Your task to perform on an android device: Open battery settings Image 0: 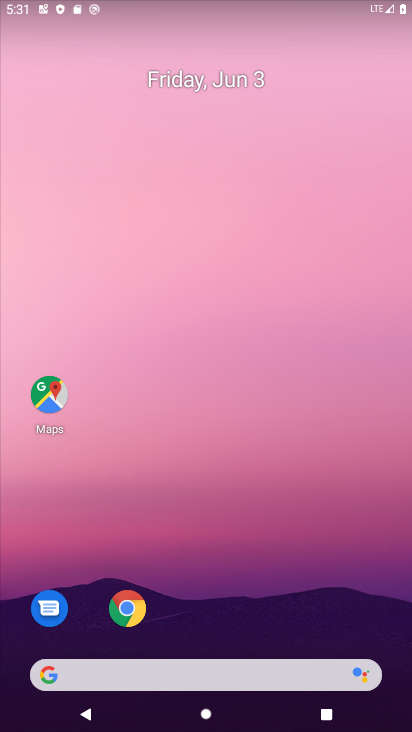
Step 0: drag from (231, 570) to (227, 121)
Your task to perform on an android device: Open battery settings Image 1: 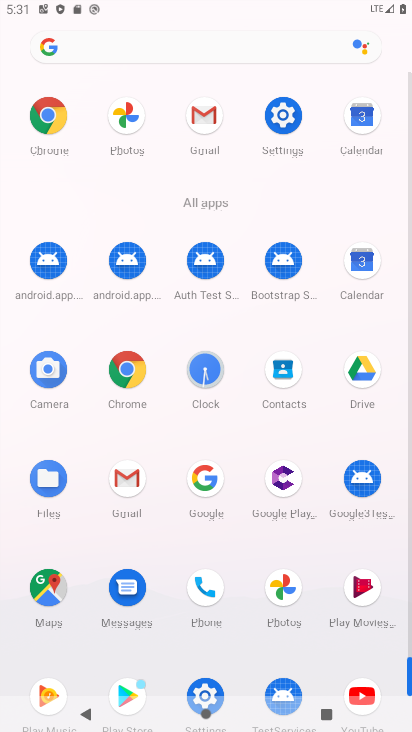
Step 1: click (284, 118)
Your task to perform on an android device: Open battery settings Image 2: 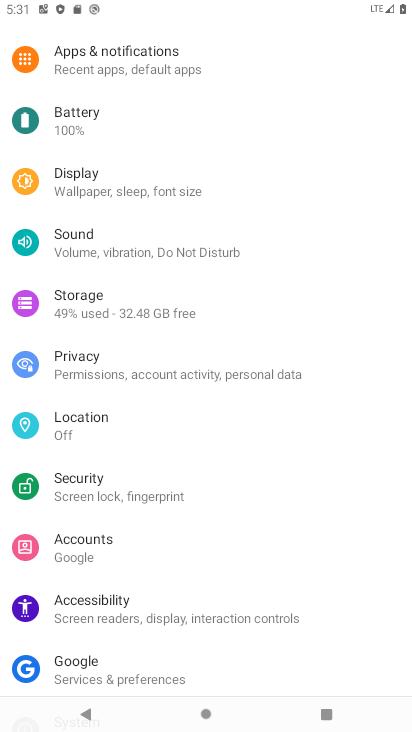
Step 2: click (139, 129)
Your task to perform on an android device: Open battery settings Image 3: 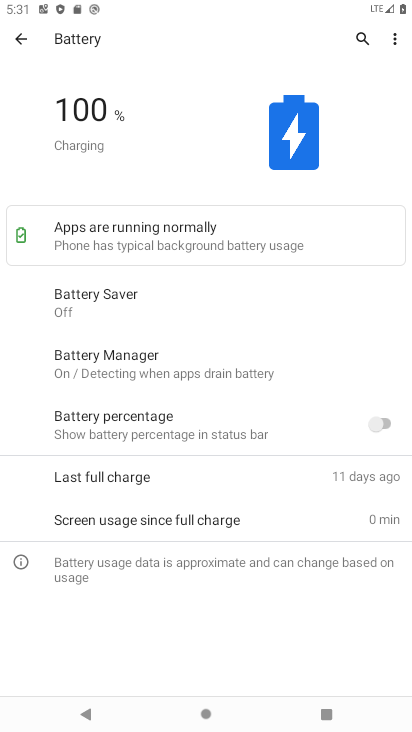
Step 3: task complete